Your task to perform on an android device: Go to wifi settings Image 0: 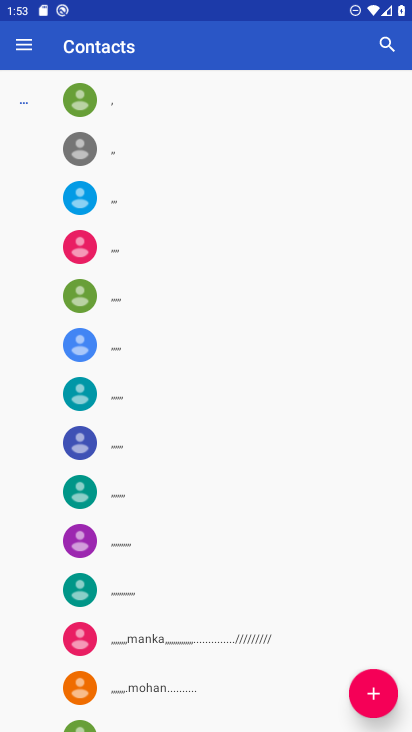
Step 0: press home button
Your task to perform on an android device: Go to wifi settings Image 1: 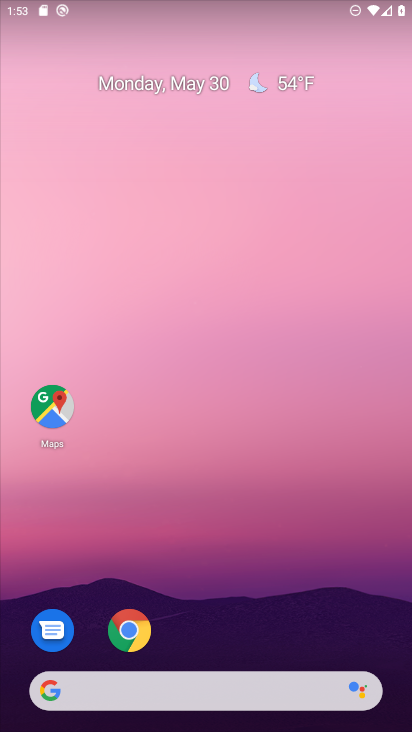
Step 1: drag from (222, 682) to (260, 82)
Your task to perform on an android device: Go to wifi settings Image 2: 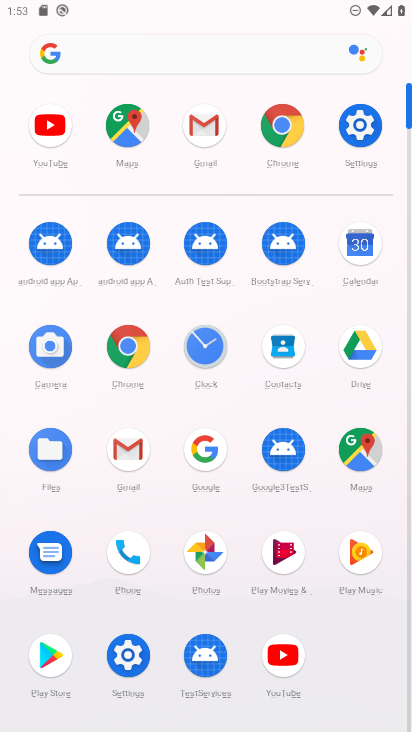
Step 2: click (376, 130)
Your task to perform on an android device: Go to wifi settings Image 3: 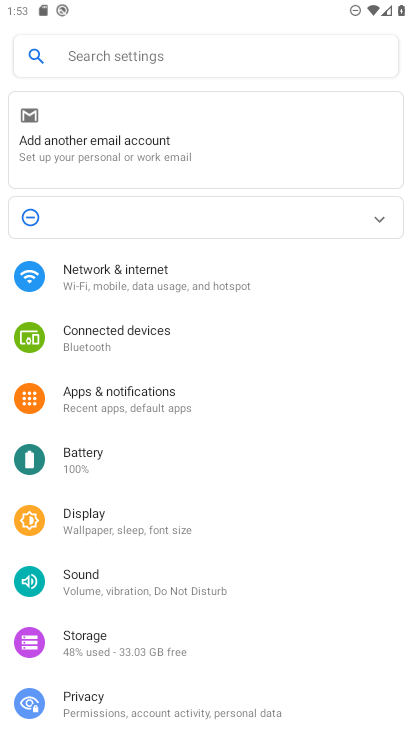
Step 3: click (211, 301)
Your task to perform on an android device: Go to wifi settings Image 4: 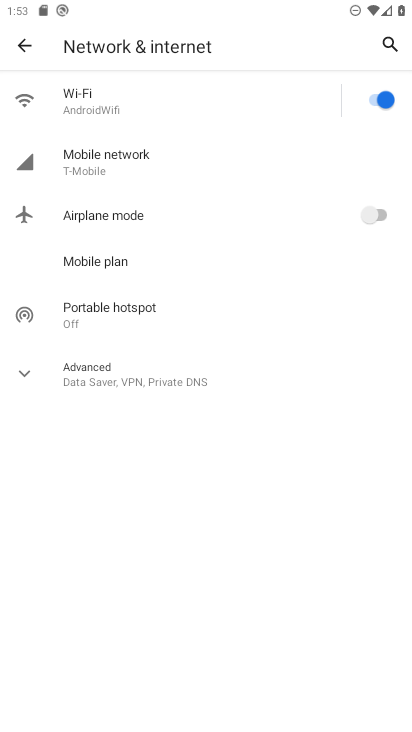
Step 4: click (119, 101)
Your task to perform on an android device: Go to wifi settings Image 5: 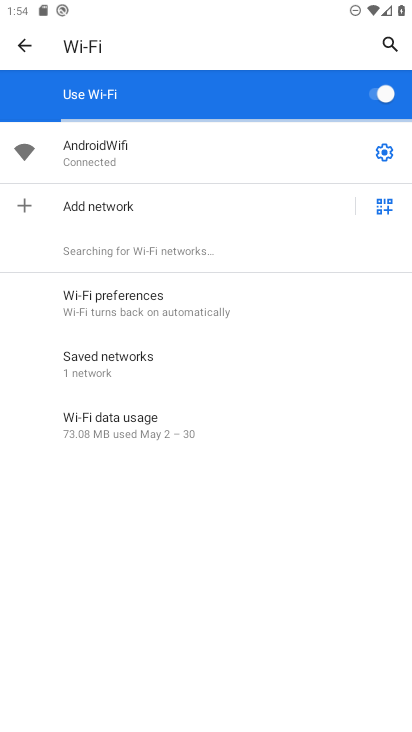
Step 5: task complete